Your task to perform on an android device: allow notifications from all sites in the chrome app Image 0: 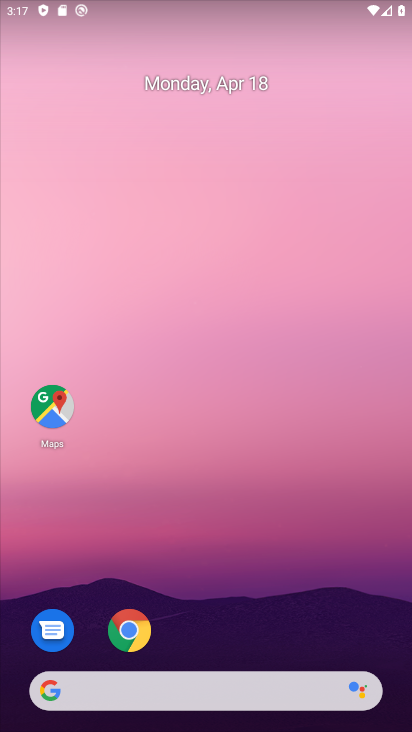
Step 0: click (144, 634)
Your task to perform on an android device: allow notifications from all sites in the chrome app Image 1: 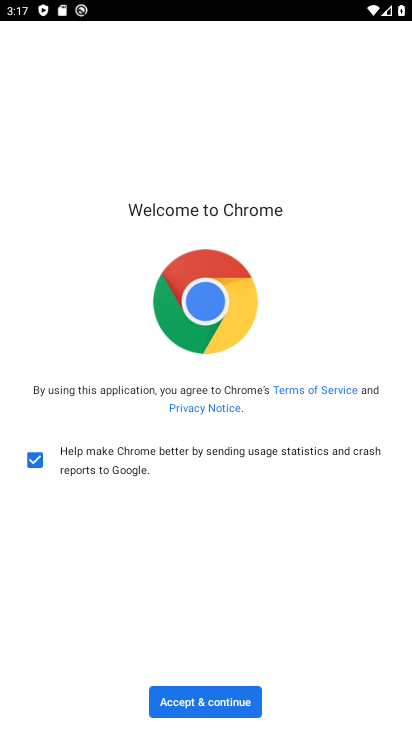
Step 1: click (236, 698)
Your task to perform on an android device: allow notifications from all sites in the chrome app Image 2: 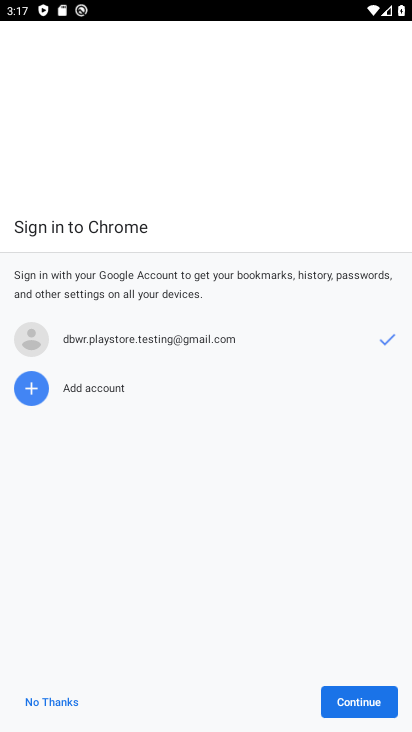
Step 2: click (359, 690)
Your task to perform on an android device: allow notifications from all sites in the chrome app Image 3: 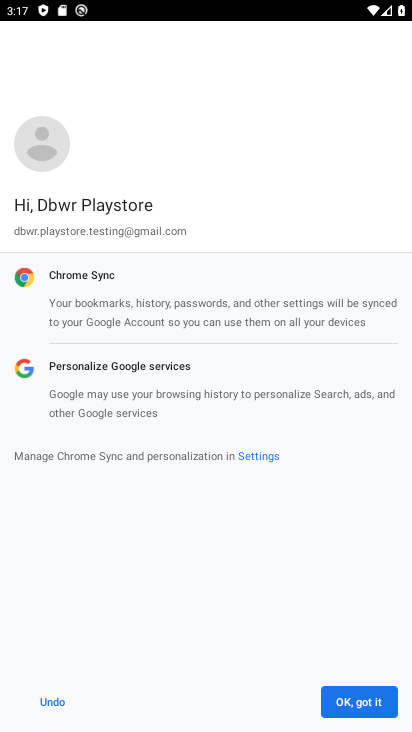
Step 3: click (363, 700)
Your task to perform on an android device: allow notifications from all sites in the chrome app Image 4: 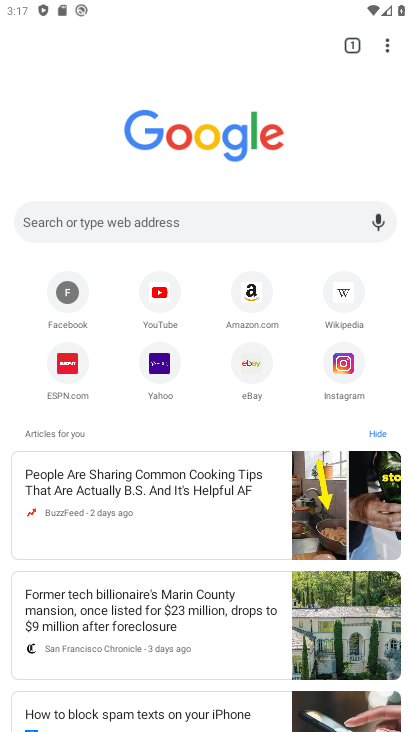
Step 4: click (395, 46)
Your task to perform on an android device: allow notifications from all sites in the chrome app Image 5: 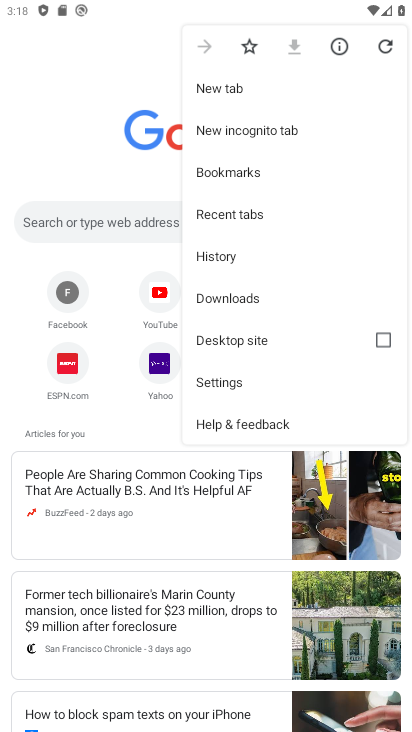
Step 5: click (244, 377)
Your task to perform on an android device: allow notifications from all sites in the chrome app Image 6: 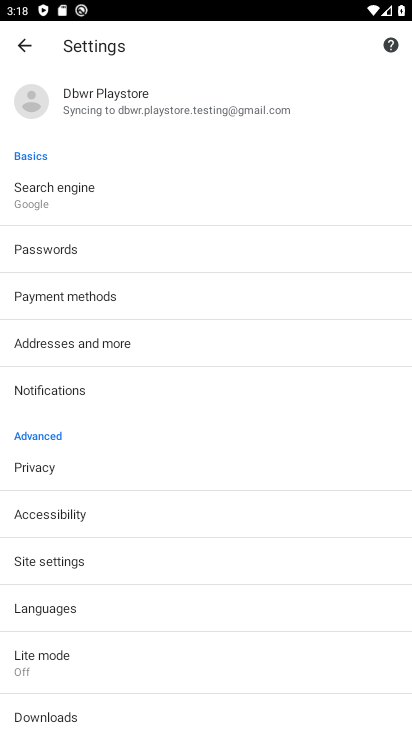
Step 6: drag from (208, 494) to (171, 261)
Your task to perform on an android device: allow notifications from all sites in the chrome app Image 7: 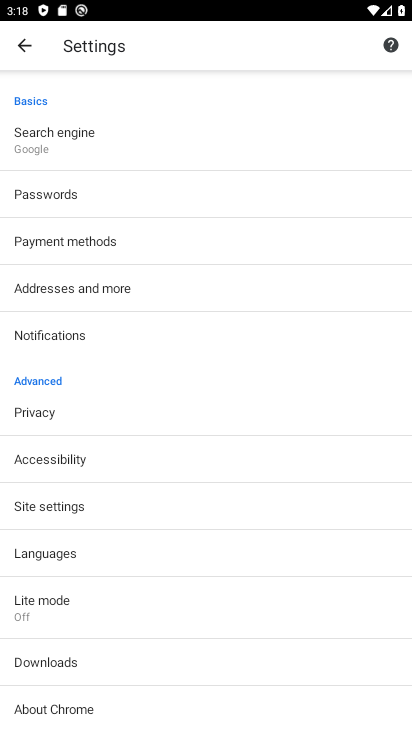
Step 7: click (95, 500)
Your task to perform on an android device: allow notifications from all sites in the chrome app Image 8: 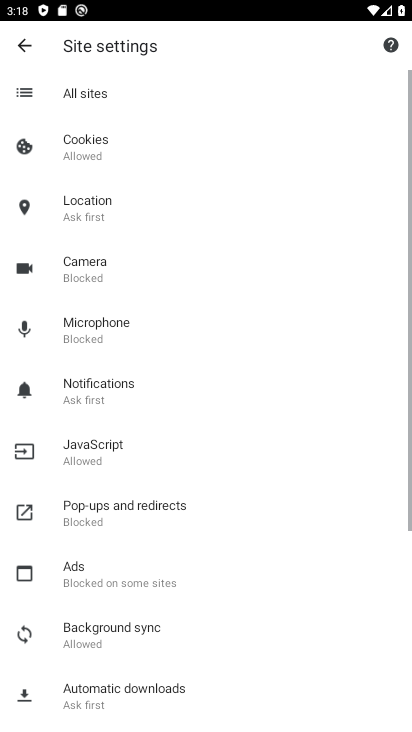
Step 8: click (138, 93)
Your task to perform on an android device: allow notifications from all sites in the chrome app Image 9: 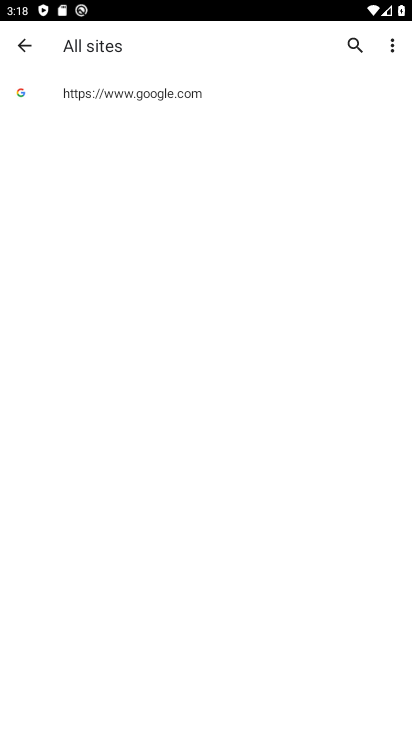
Step 9: click (138, 96)
Your task to perform on an android device: allow notifications from all sites in the chrome app Image 10: 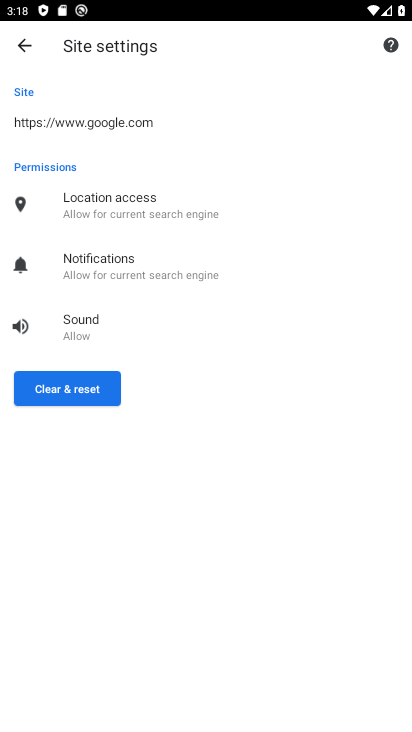
Step 10: click (206, 280)
Your task to perform on an android device: allow notifications from all sites in the chrome app Image 11: 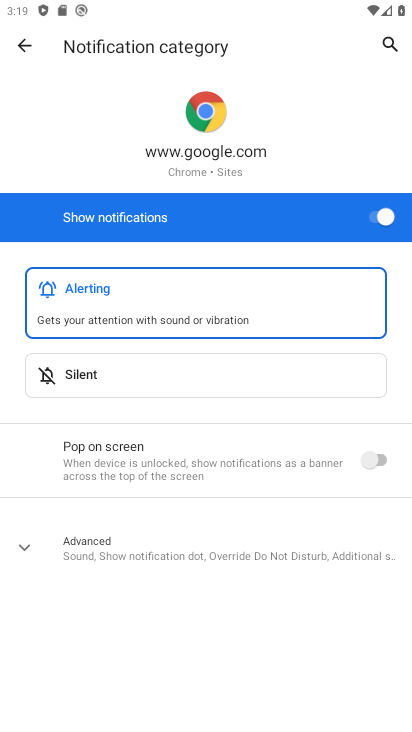
Step 11: task complete